Your task to perform on an android device: Open Google Maps and go to "Timeline" Image 0: 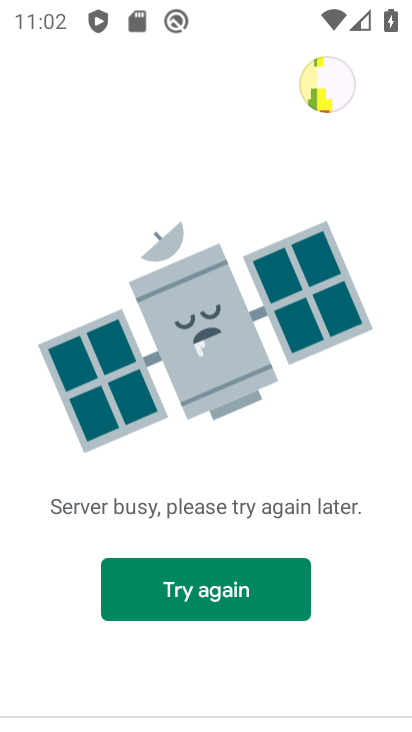
Step 0: press home button
Your task to perform on an android device: Open Google Maps and go to "Timeline" Image 1: 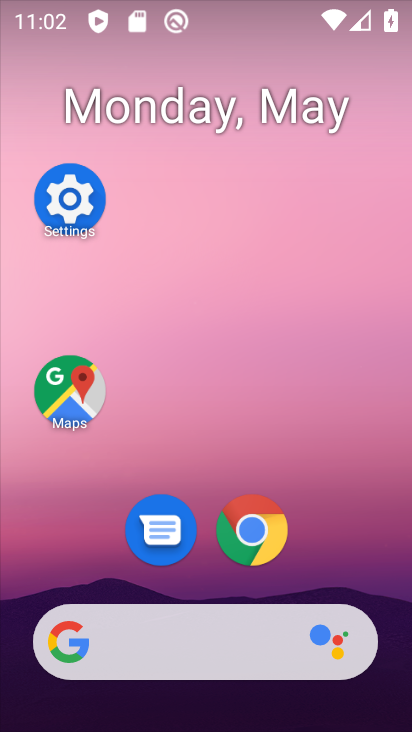
Step 1: click (84, 418)
Your task to perform on an android device: Open Google Maps and go to "Timeline" Image 2: 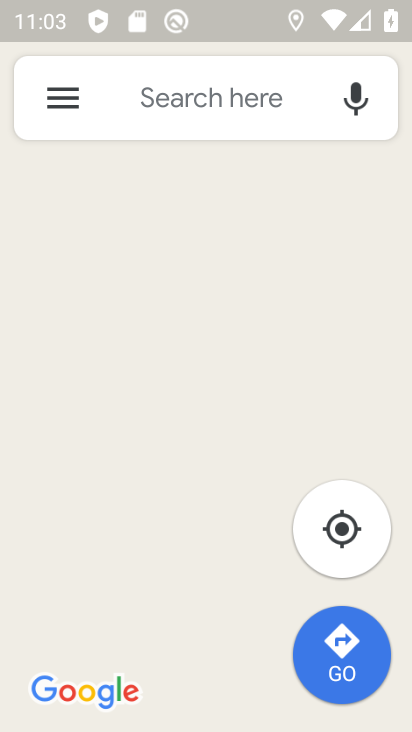
Step 2: click (69, 99)
Your task to perform on an android device: Open Google Maps and go to "Timeline" Image 3: 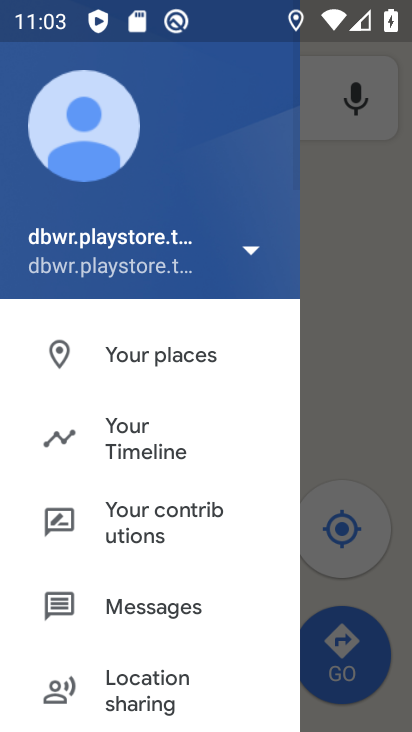
Step 3: click (133, 449)
Your task to perform on an android device: Open Google Maps and go to "Timeline" Image 4: 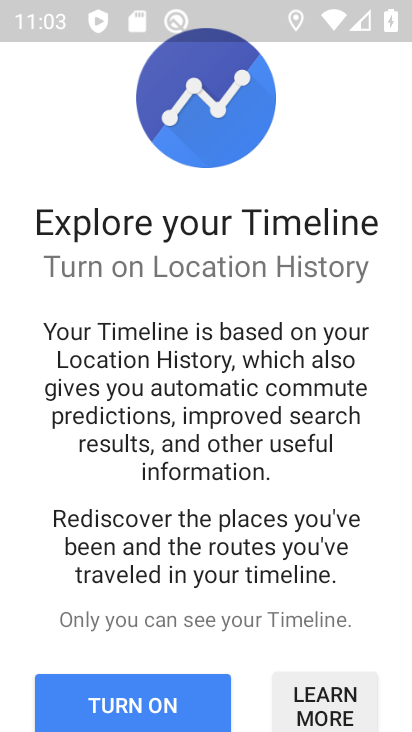
Step 4: click (191, 696)
Your task to perform on an android device: Open Google Maps and go to "Timeline" Image 5: 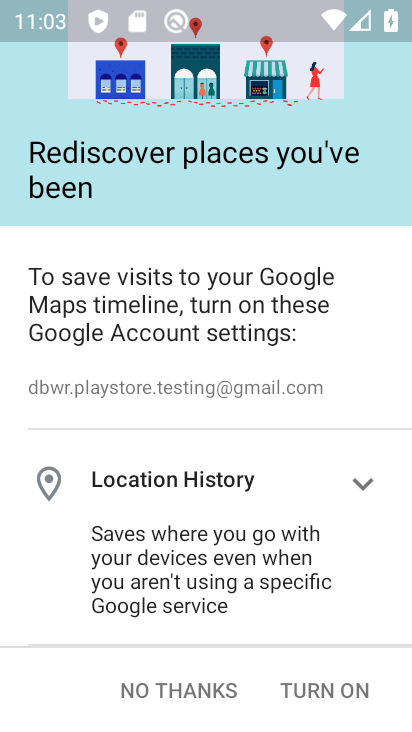
Step 5: click (334, 690)
Your task to perform on an android device: Open Google Maps and go to "Timeline" Image 6: 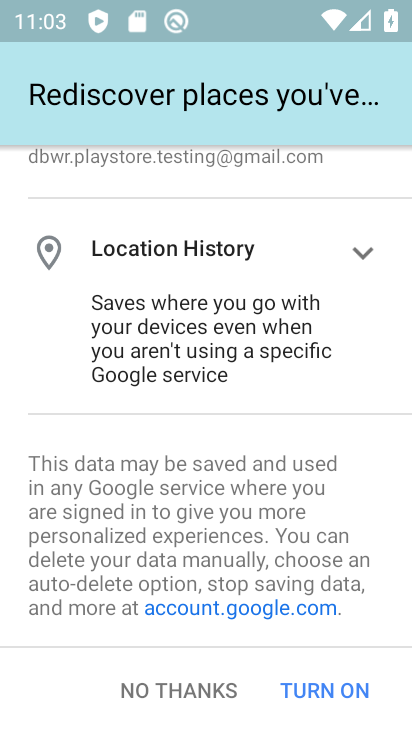
Step 6: click (362, 703)
Your task to perform on an android device: Open Google Maps and go to "Timeline" Image 7: 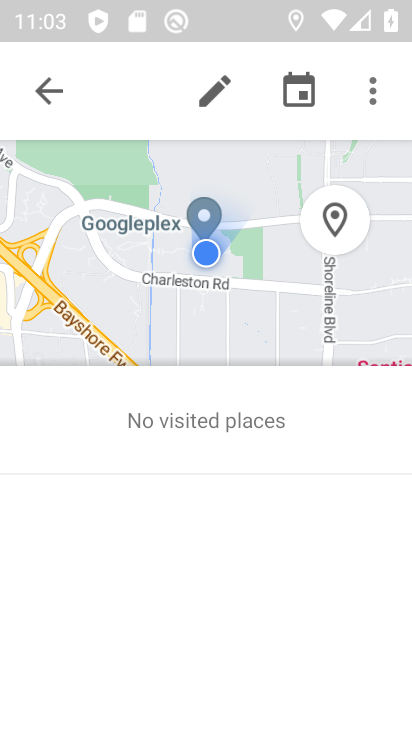
Step 7: task complete